Your task to perform on an android device: Open Chrome and go to settings Image 0: 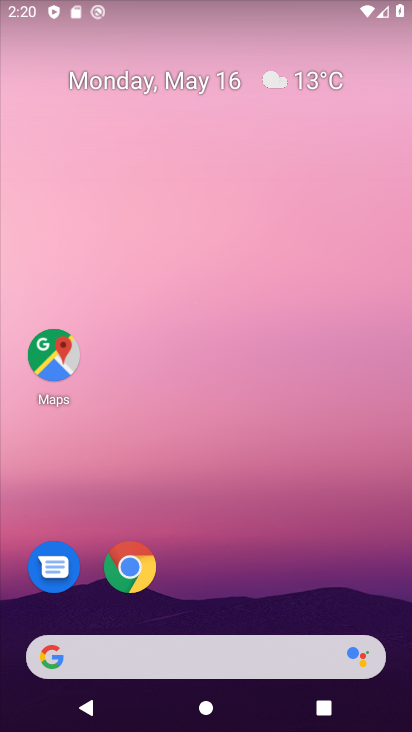
Step 0: drag from (298, 590) to (310, 138)
Your task to perform on an android device: Open Chrome and go to settings Image 1: 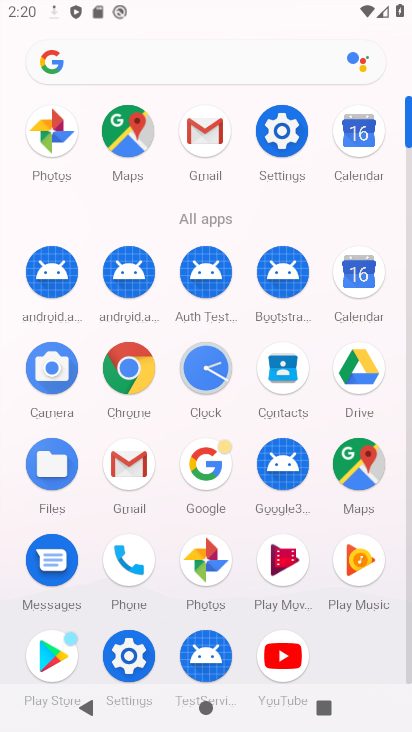
Step 1: click (132, 366)
Your task to perform on an android device: Open Chrome and go to settings Image 2: 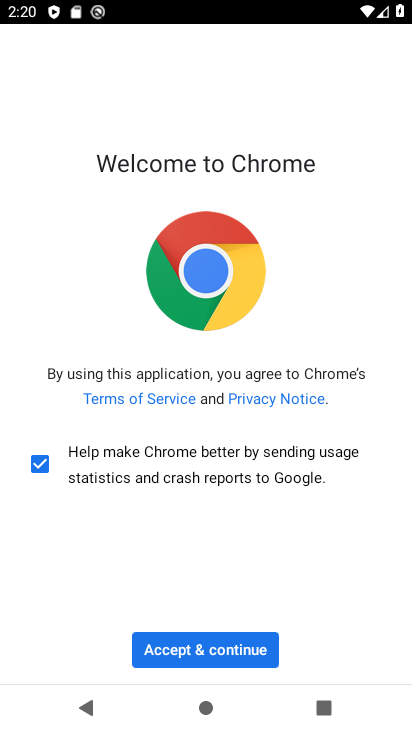
Step 2: click (189, 636)
Your task to perform on an android device: Open Chrome and go to settings Image 3: 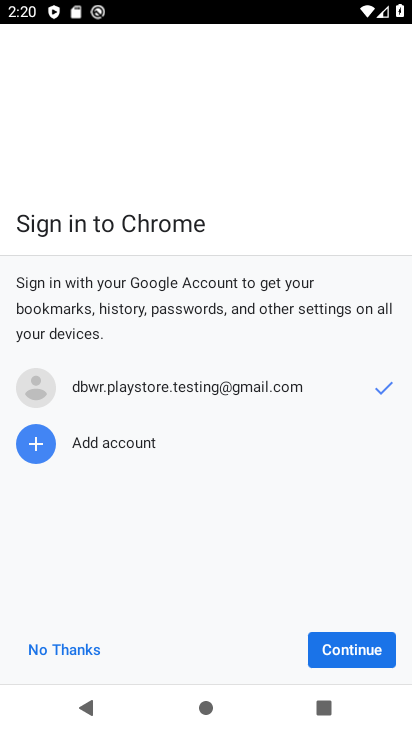
Step 3: click (372, 634)
Your task to perform on an android device: Open Chrome and go to settings Image 4: 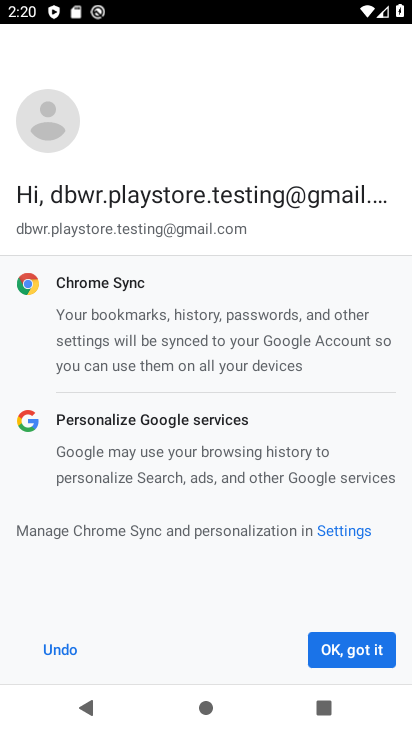
Step 4: click (352, 640)
Your task to perform on an android device: Open Chrome and go to settings Image 5: 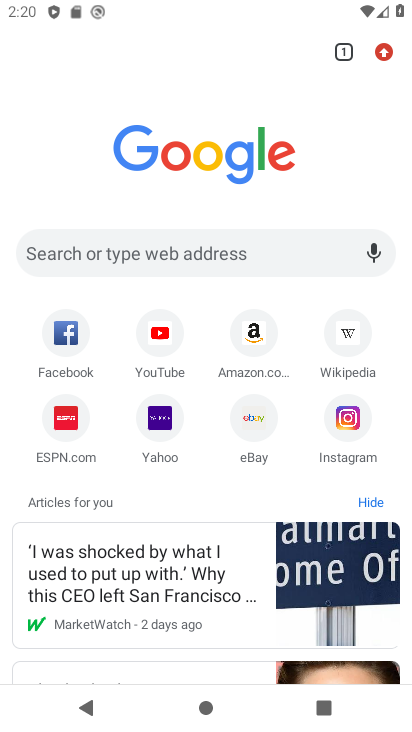
Step 5: click (392, 51)
Your task to perform on an android device: Open Chrome and go to settings Image 6: 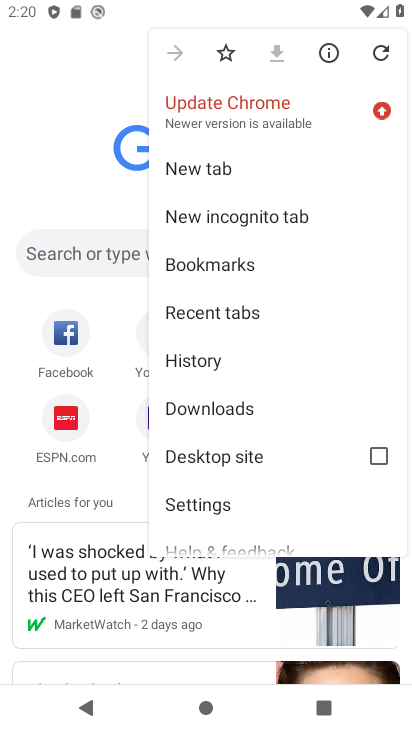
Step 6: click (208, 505)
Your task to perform on an android device: Open Chrome and go to settings Image 7: 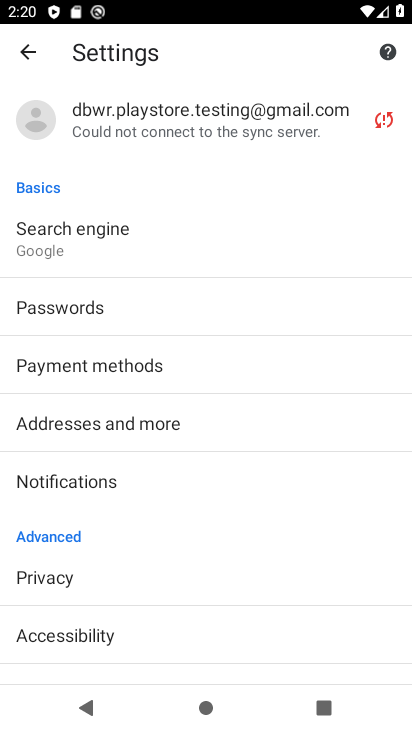
Step 7: task complete